Your task to perform on an android device: Open the stopwatch Image 0: 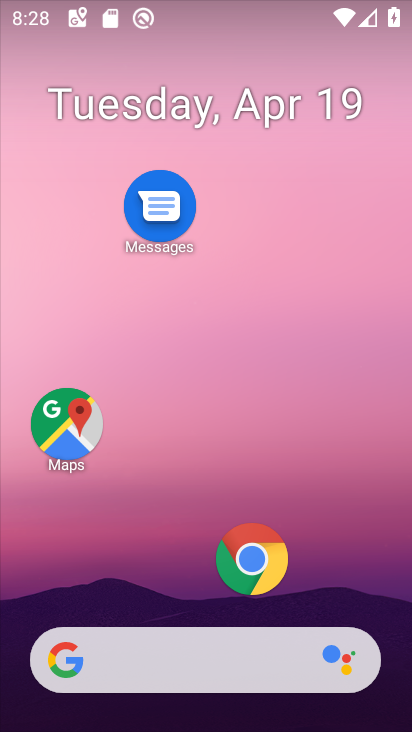
Step 0: drag from (193, 650) to (139, 344)
Your task to perform on an android device: Open the stopwatch Image 1: 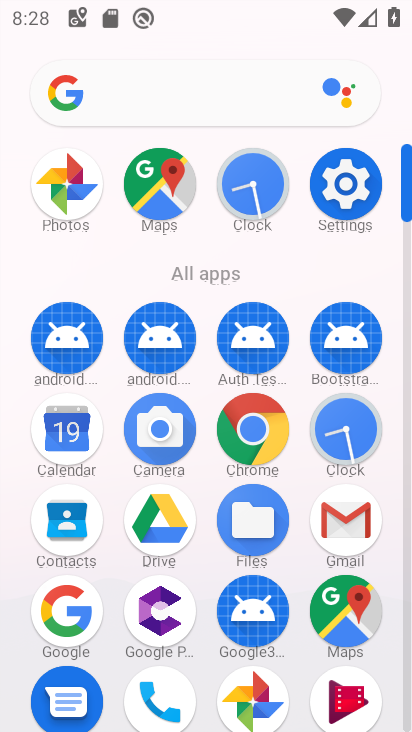
Step 1: click (369, 449)
Your task to perform on an android device: Open the stopwatch Image 2: 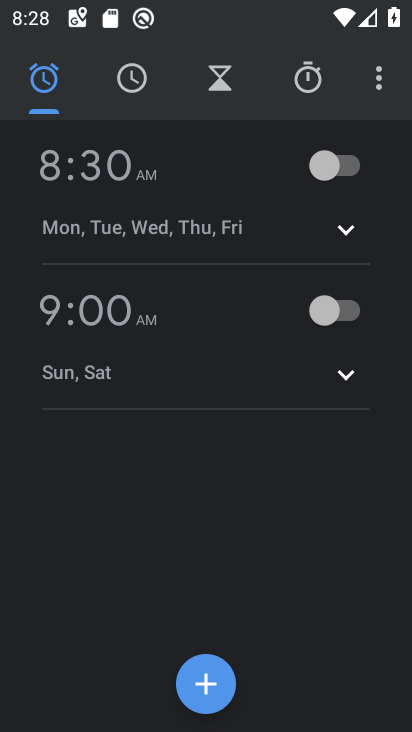
Step 2: click (296, 83)
Your task to perform on an android device: Open the stopwatch Image 3: 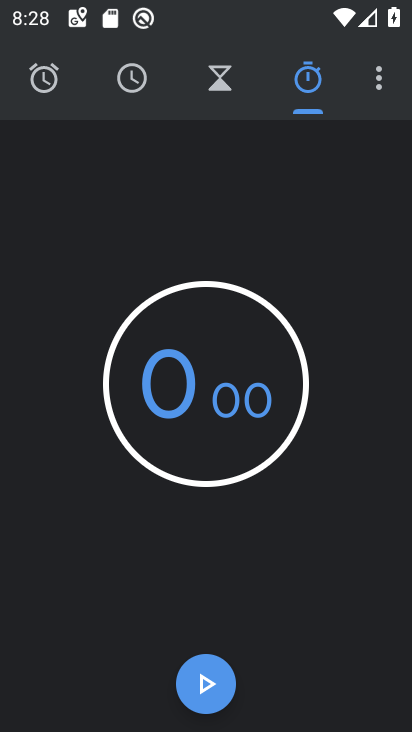
Step 3: click (191, 396)
Your task to perform on an android device: Open the stopwatch Image 4: 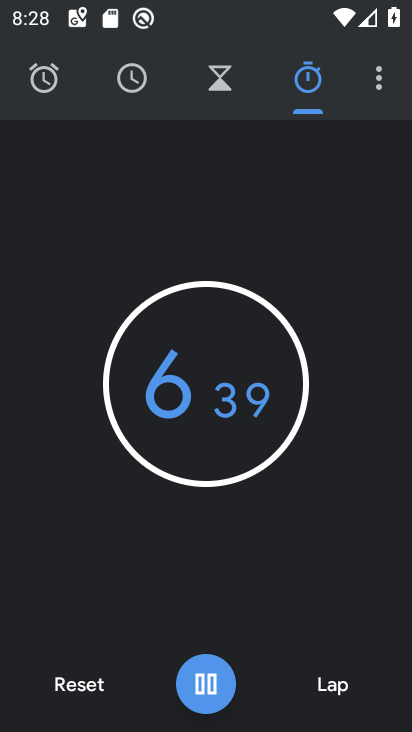
Step 4: click (221, 687)
Your task to perform on an android device: Open the stopwatch Image 5: 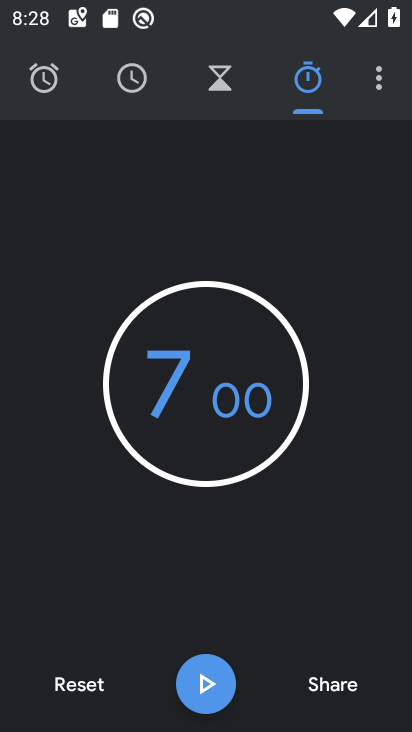
Step 5: task complete